Your task to perform on an android device: change alarm snooze length Image 0: 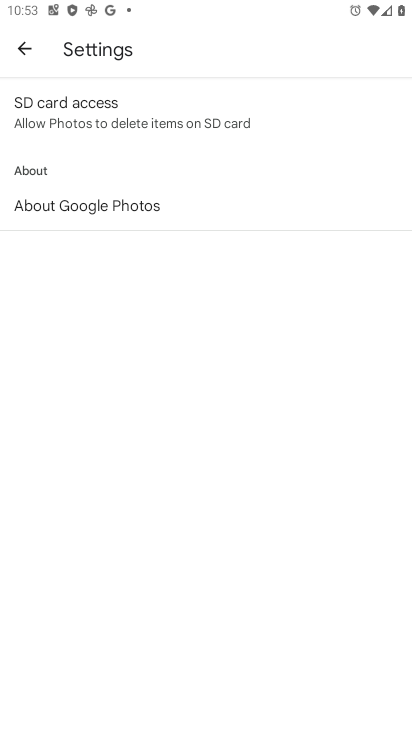
Step 0: press home button
Your task to perform on an android device: change alarm snooze length Image 1: 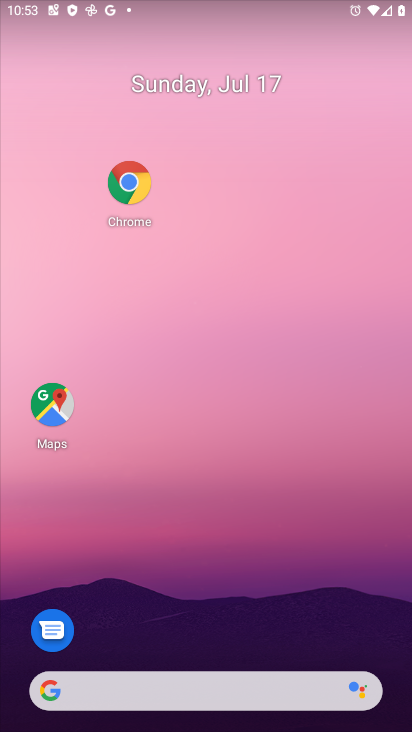
Step 1: drag from (189, 522) to (175, 80)
Your task to perform on an android device: change alarm snooze length Image 2: 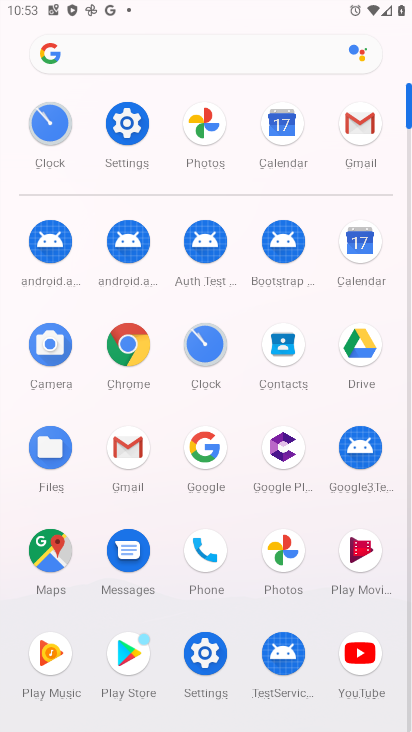
Step 2: click (121, 121)
Your task to perform on an android device: change alarm snooze length Image 3: 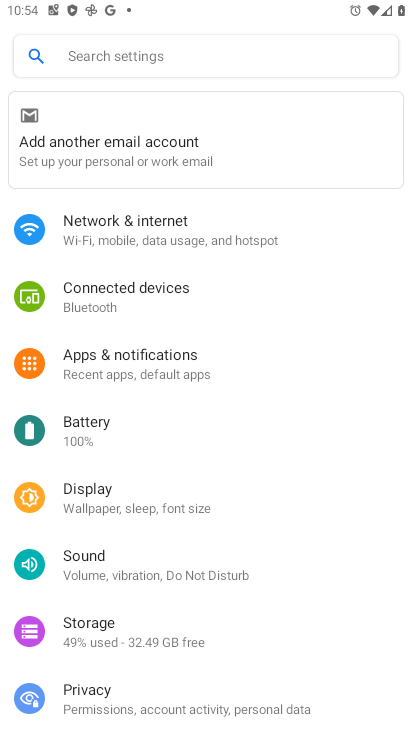
Step 3: press back button
Your task to perform on an android device: change alarm snooze length Image 4: 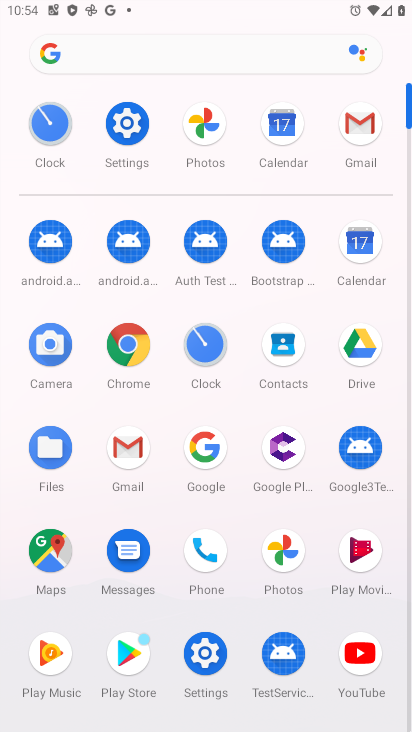
Step 4: click (46, 150)
Your task to perform on an android device: change alarm snooze length Image 5: 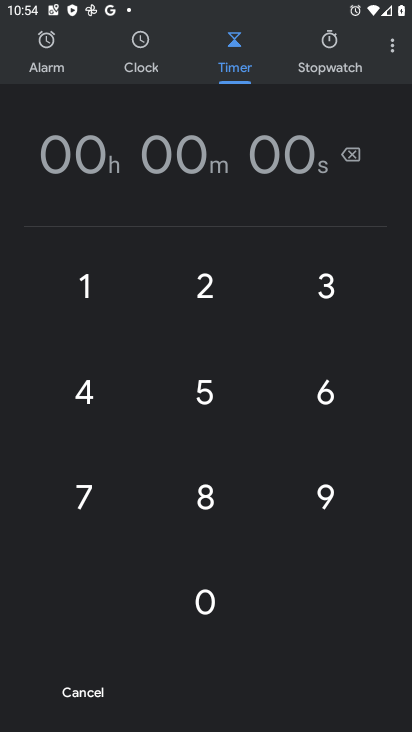
Step 5: click (390, 47)
Your task to perform on an android device: change alarm snooze length Image 6: 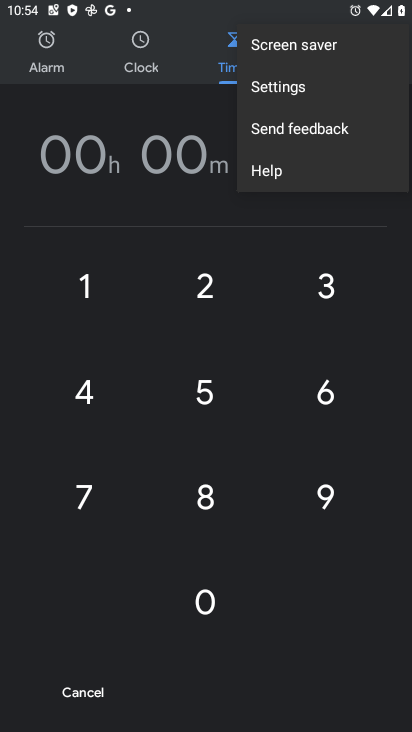
Step 6: click (297, 91)
Your task to perform on an android device: change alarm snooze length Image 7: 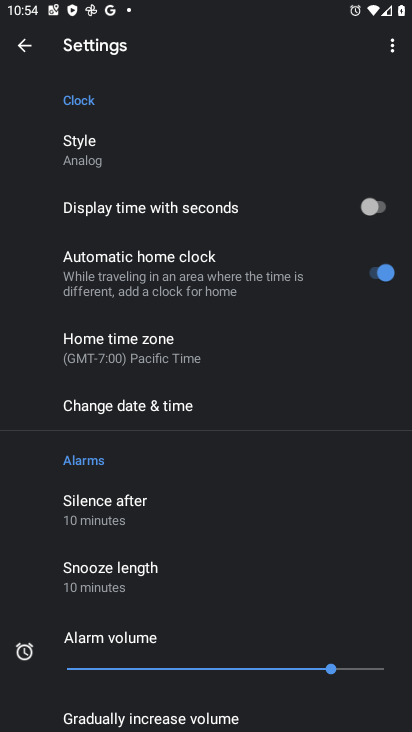
Step 7: click (121, 565)
Your task to perform on an android device: change alarm snooze length Image 8: 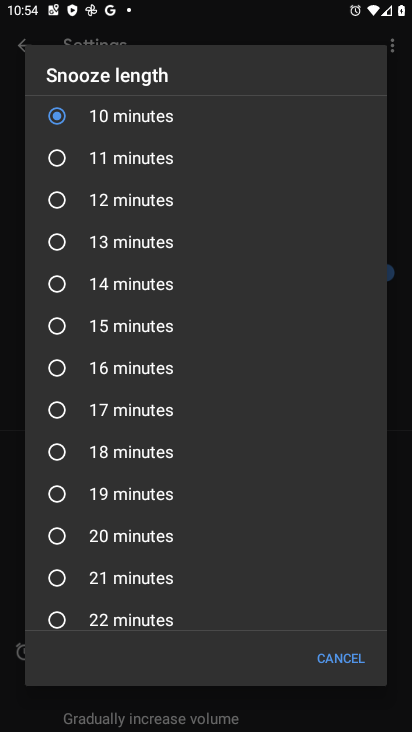
Step 8: click (57, 165)
Your task to perform on an android device: change alarm snooze length Image 9: 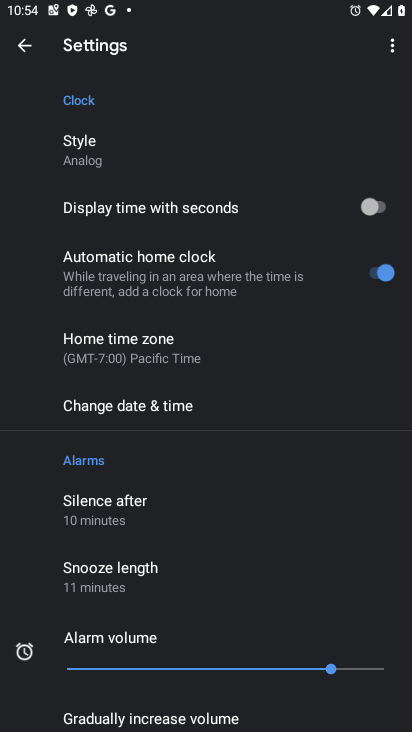
Step 9: task complete